Your task to perform on an android device: Go to internet settings Image 0: 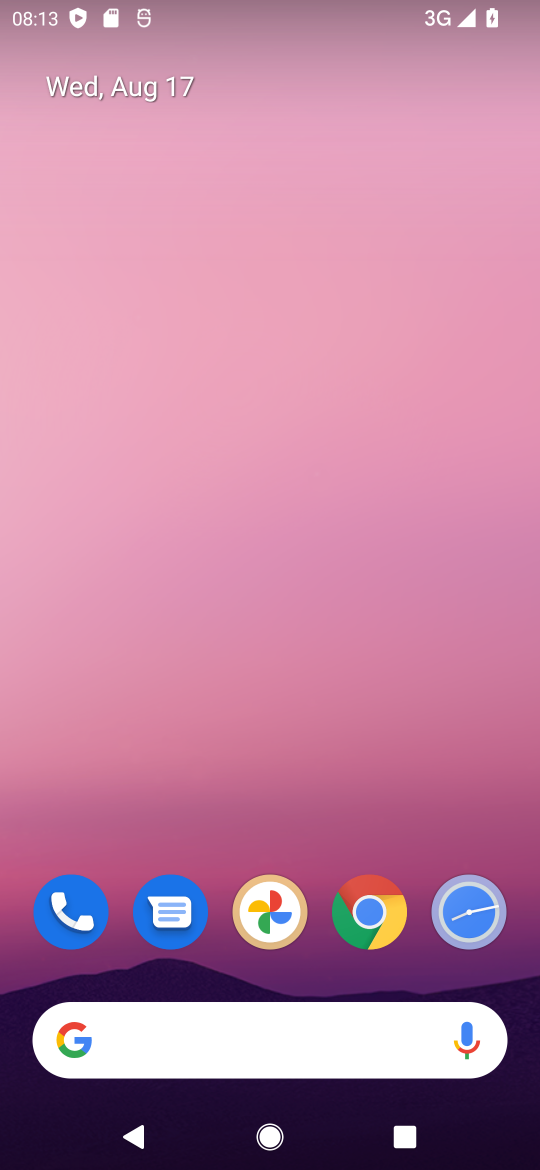
Step 0: drag from (211, 1010) to (256, 254)
Your task to perform on an android device: Go to internet settings Image 1: 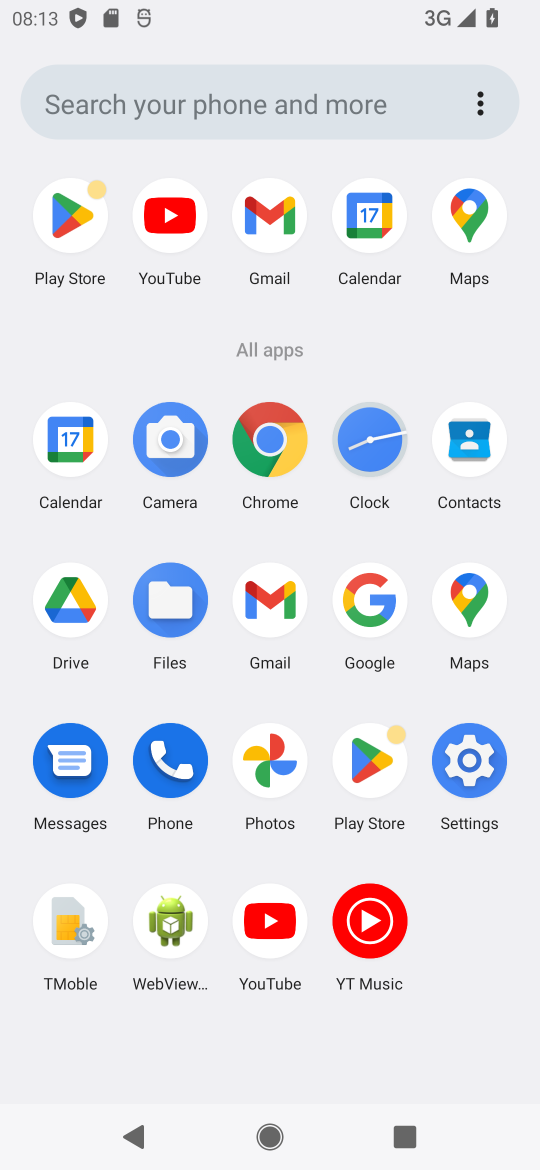
Step 1: click (473, 769)
Your task to perform on an android device: Go to internet settings Image 2: 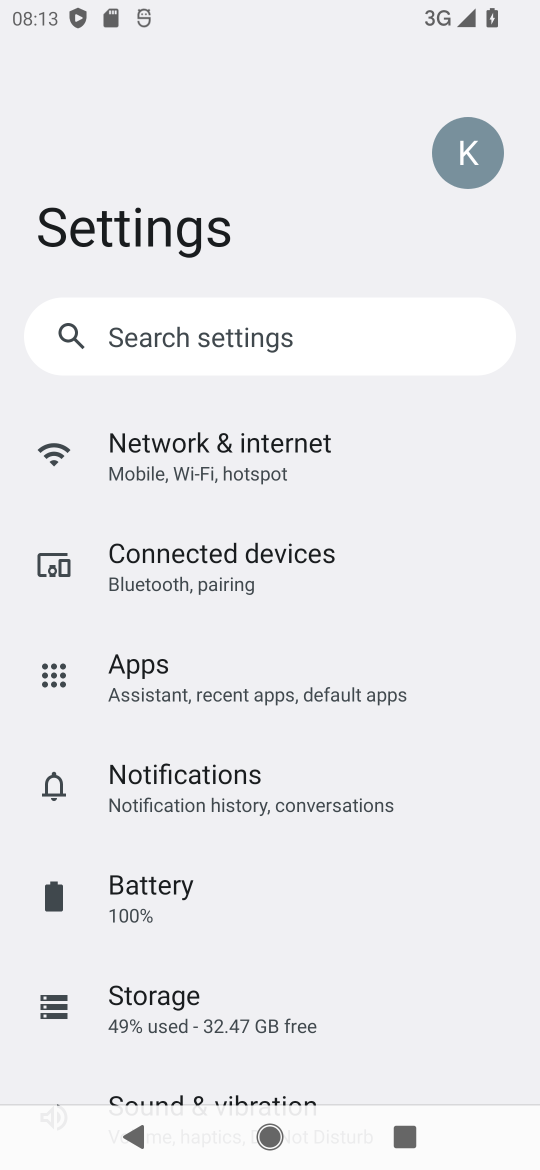
Step 2: click (163, 451)
Your task to perform on an android device: Go to internet settings Image 3: 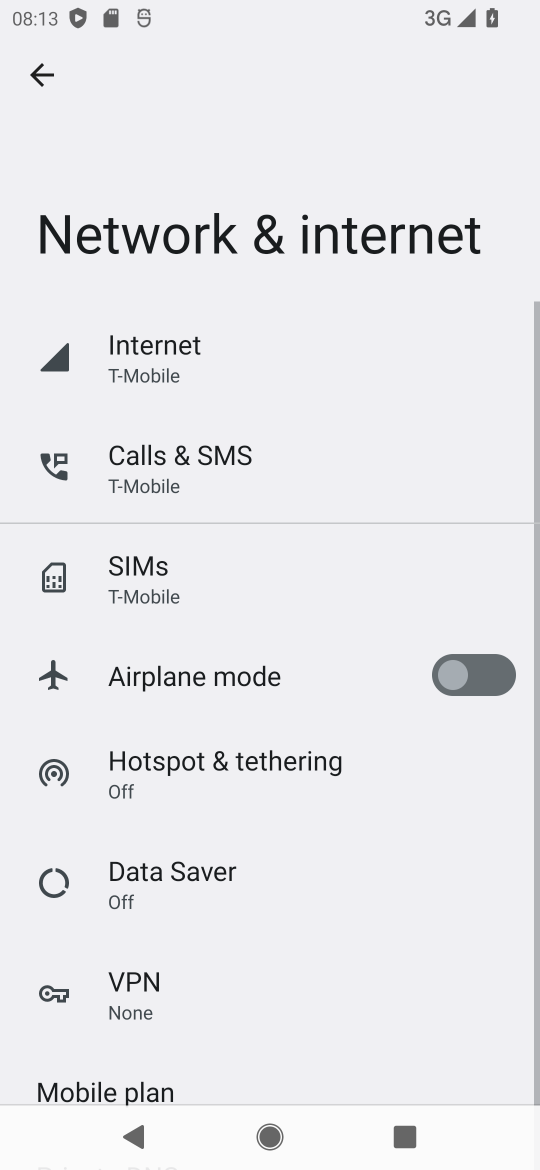
Step 3: click (190, 362)
Your task to perform on an android device: Go to internet settings Image 4: 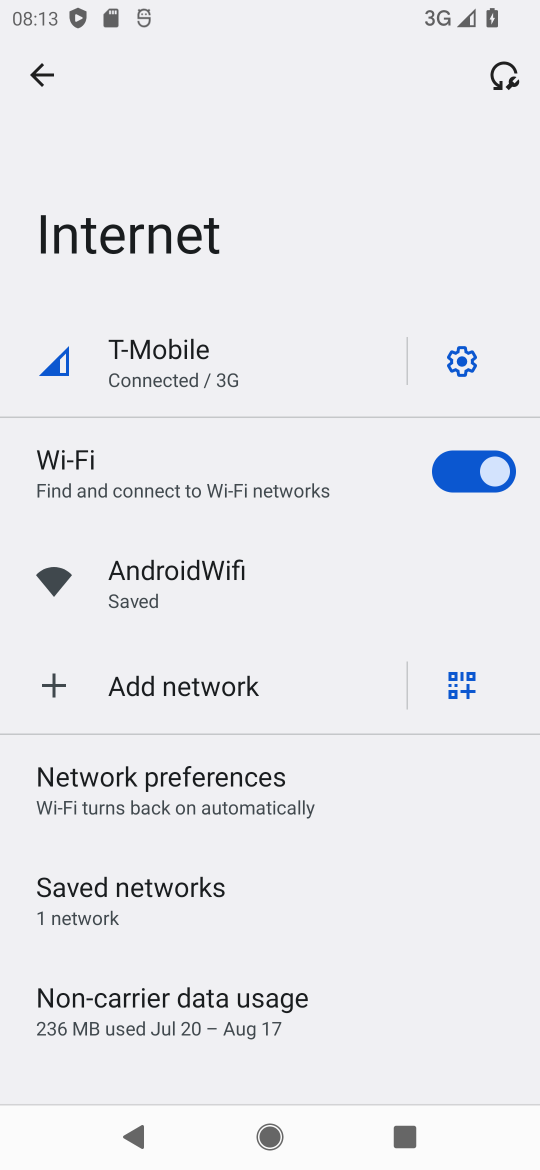
Step 4: drag from (218, 718) to (222, 440)
Your task to perform on an android device: Go to internet settings Image 5: 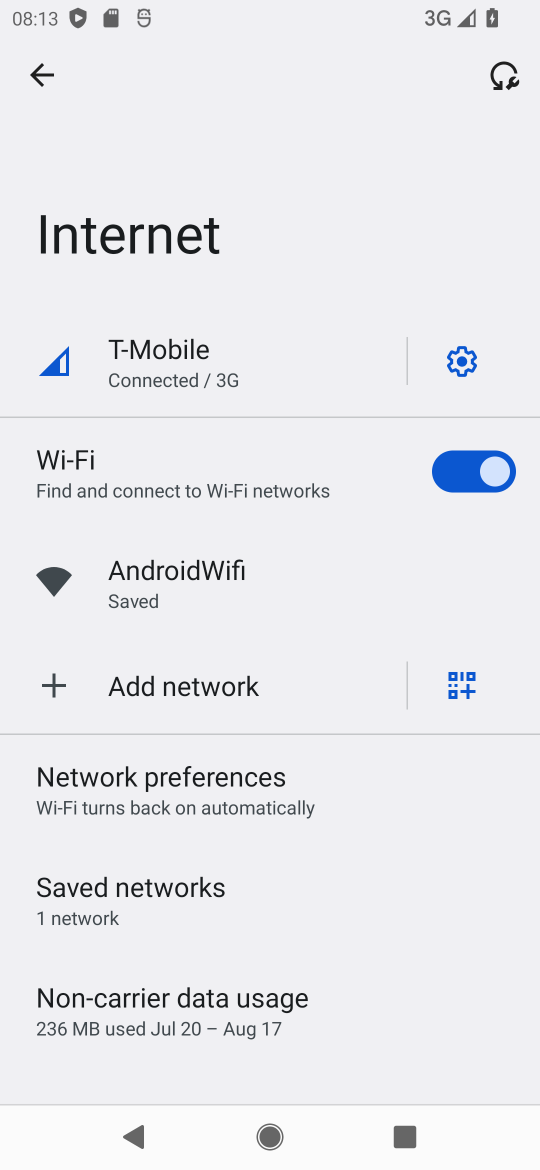
Step 5: click (455, 358)
Your task to perform on an android device: Go to internet settings Image 6: 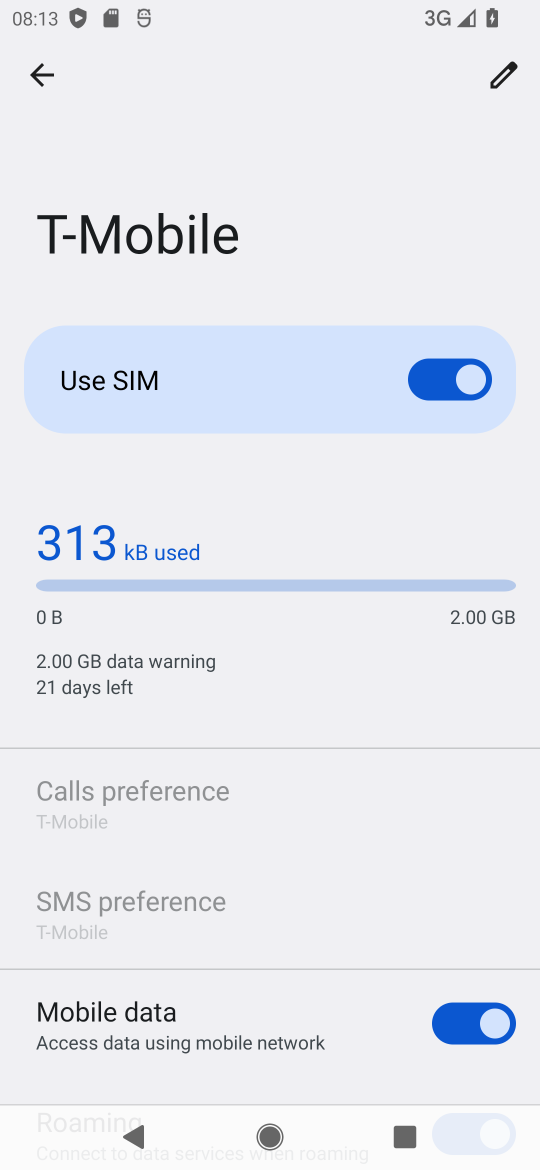
Step 6: task complete